Your task to perform on an android device: Open calendar and show me the fourth week of next month Image 0: 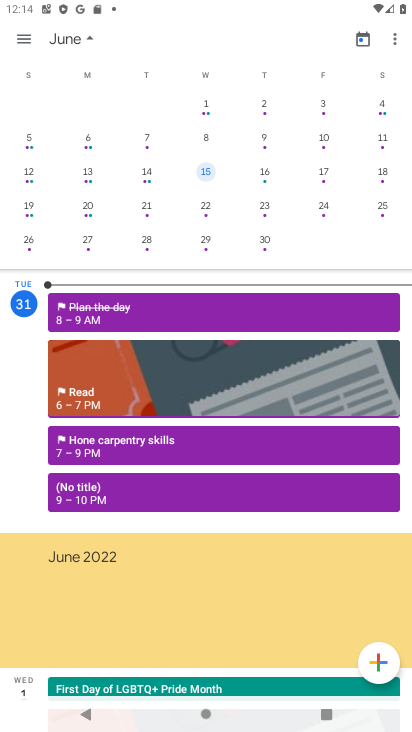
Step 0: press home button
Your task to perform on an android device: Open calendar and show me the fourth week of next month Image 1: 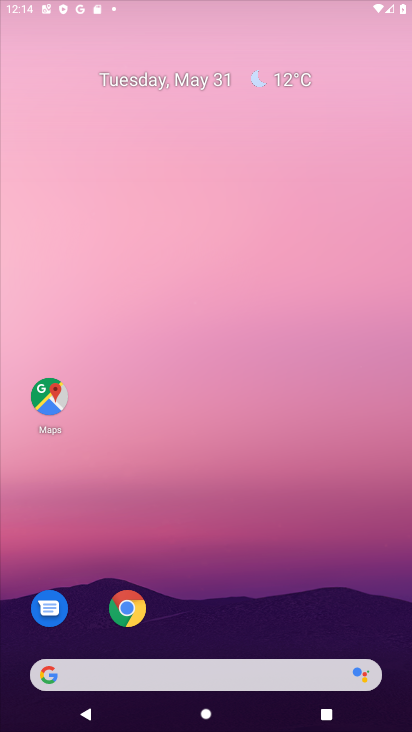
Step 1: drag from (204, 619) to (289, 88)
Your task to perform on an android device: Open calendar and show me the fourth week of next month Image 2: 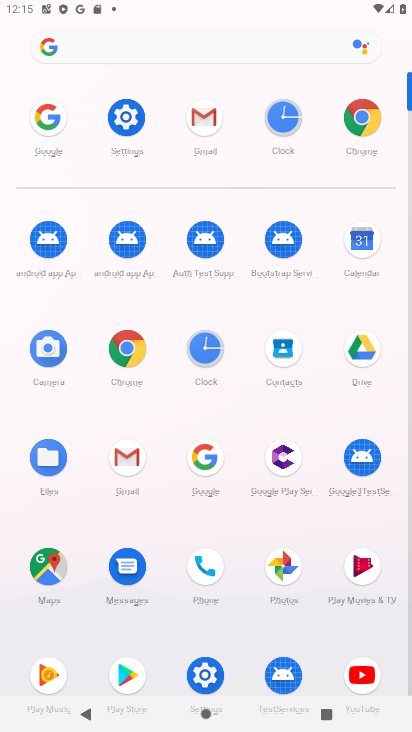
Step 2: click (362, 245)
Your task to perform on an android device: Open calendar and show me the fourth week of next month Image 3: 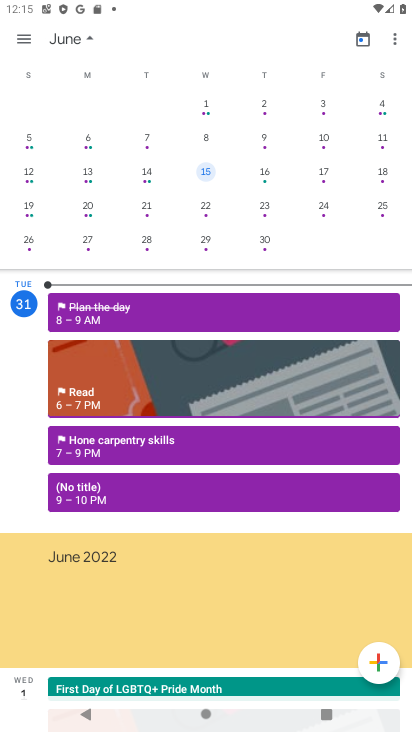
Step 3: click (200, 203)
Your task to perform on an android device: Open calendar and show me the fourth week of next month Image 4: 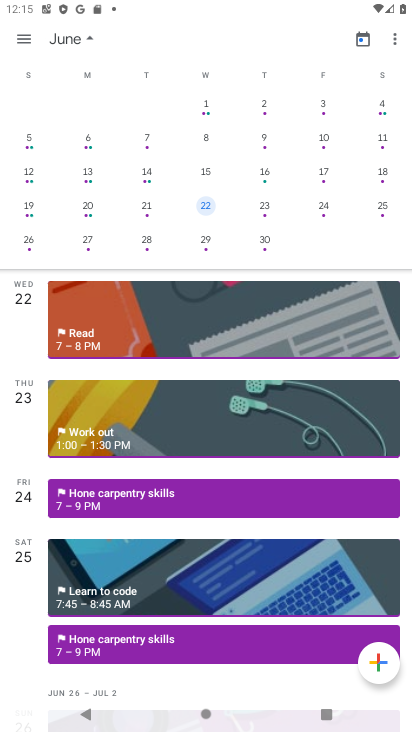
Step 4: task complete